Your task to perform on an android device: Go to Amazon Image 0: 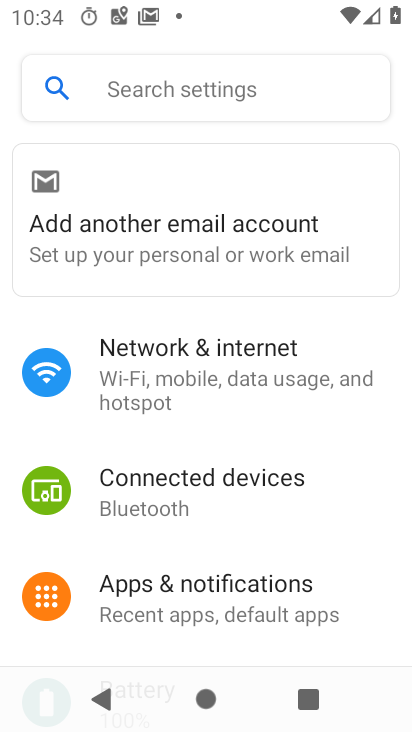
Step 0: press home button
Your task to perform on an android device: Go to Amazon Image 1: 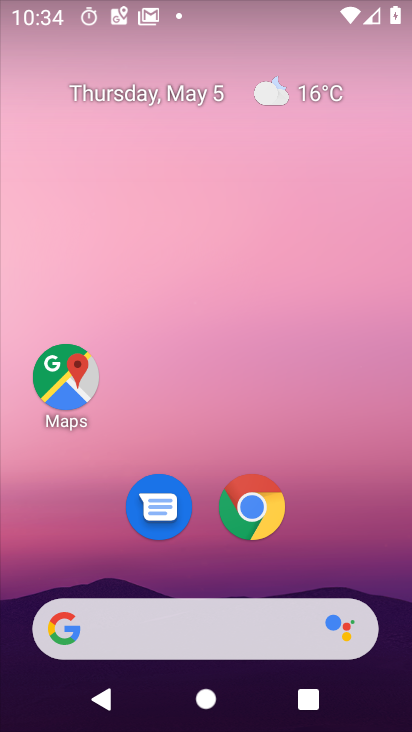
Step 1: drag from (201, 580) to (202, 104)
Your task to perform on an android device: Go to Amazon Image 2: 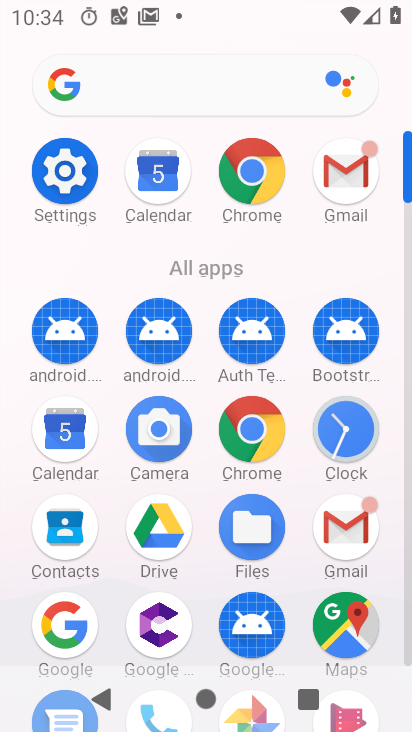
Step 2: click (252, 176)
Your task to perform on an android device: Go to Amazon Image 3: 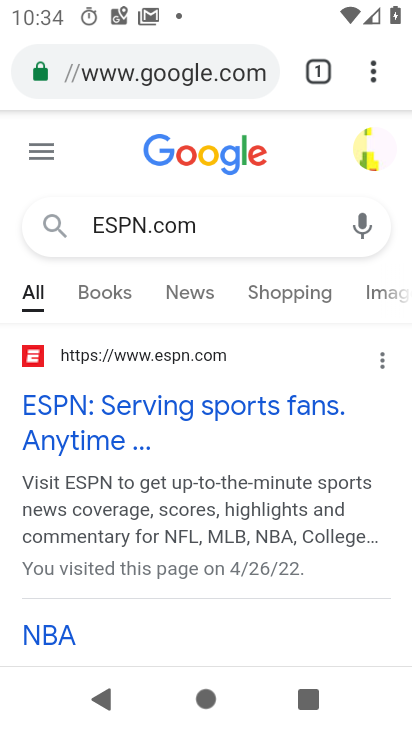
Step 3: click (112, 81)
Your task to perform on an android device: Go to Amazon Image 4: 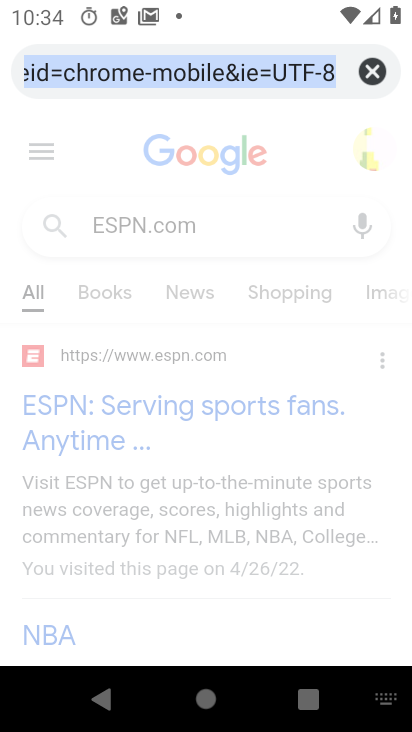
Step 4: type "Amazon"
Your task to perform on an android device: Go to Amazon Image 5: 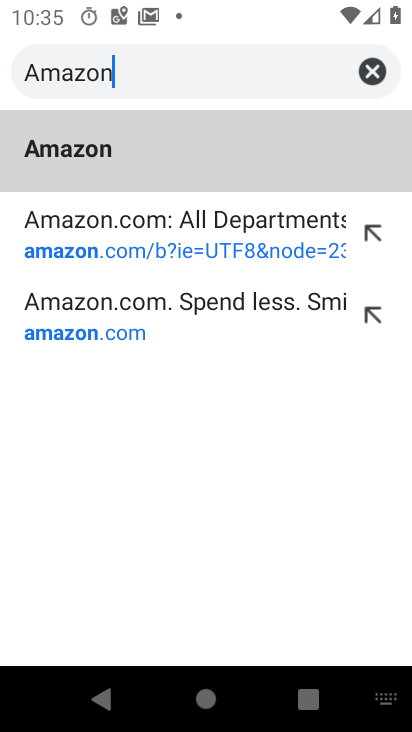
Step 5: click (105, 174)
Your task to perform on an android device: Go to Amazon Image 6: 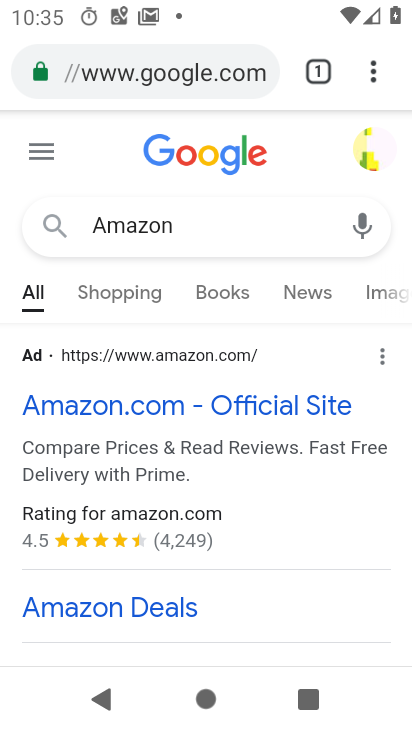
Step 6: task complete